Your task to perform on an android device: Open internet settings Image 0: 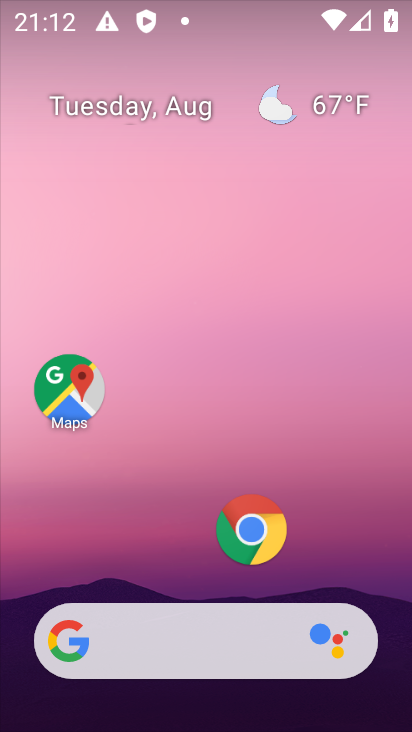
Step 0: drag from (157, 548) to (113, 52)
Your task to perform on an android device: Open internet settings Image 1: 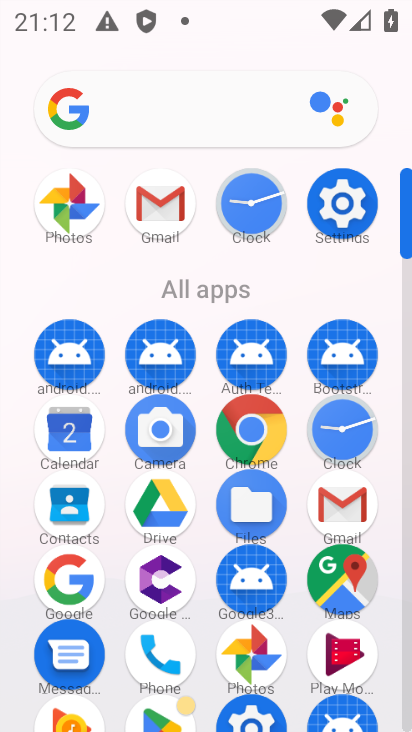
Step 1: click (341, 196)
Your task to perform on an android device: Open internet settings Image 2: 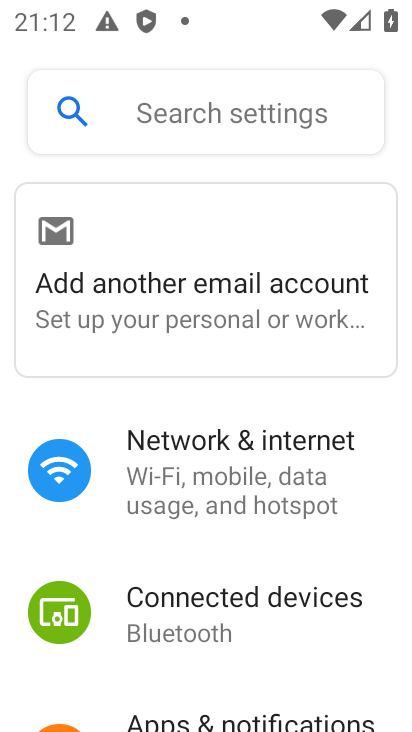
Step 2: drag from (241, 655) to (241, 563)
Your task to perform on an android device: Open internet settings Image 3: 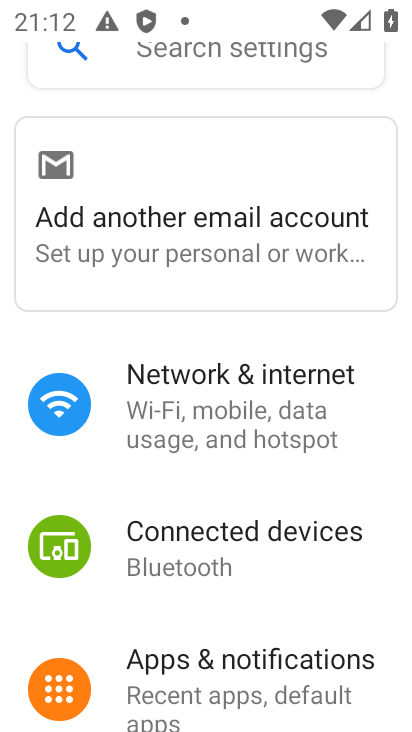
Step 3: click (273, 413)
Your task to perform on an android device: Open internet settings Image 4: 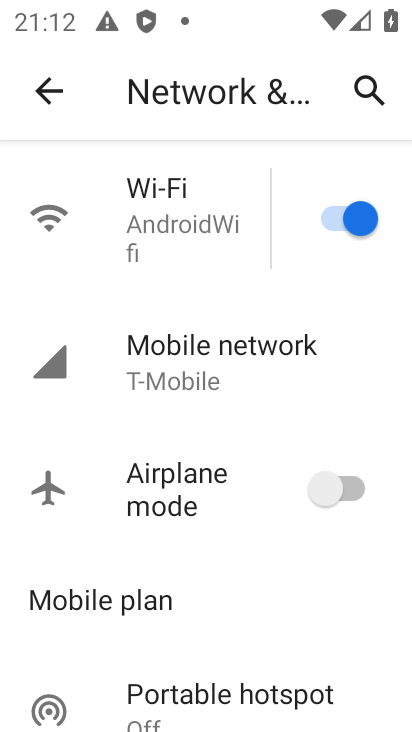
Step 4: task complete